Your task to perform on an android device: Go to calendar. Show me events next week Image 0: 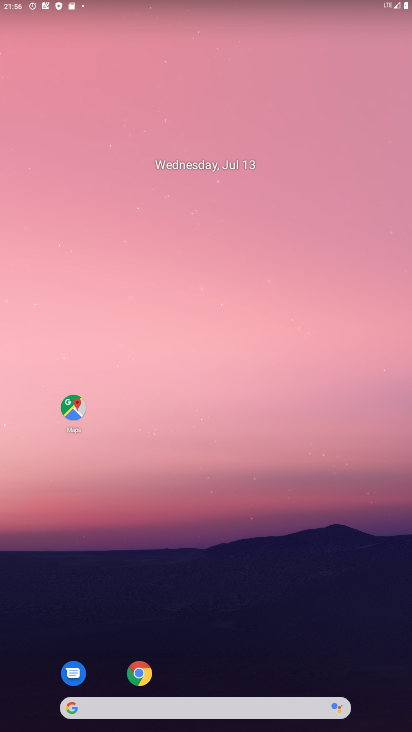
Step 0: drag from (183, 674) to (220, 196)
Your task to perform on an android device: Go to calendar. Show me events next week Image 1: 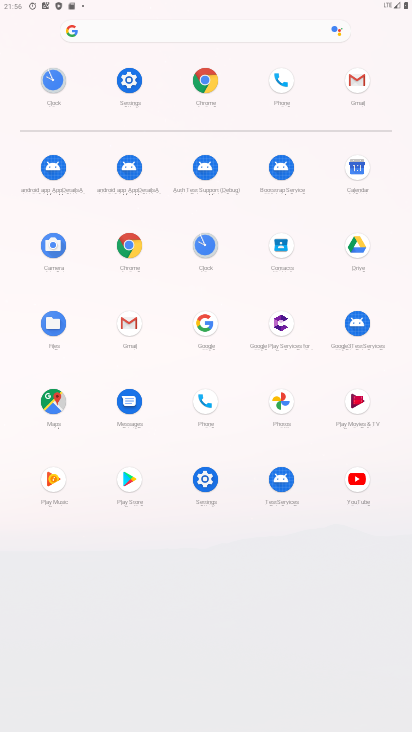
Step 1: drag from (191, 592) to (195, 392)
Your task to perform on an android device: Go to calendar. Show me events next week Image 2: 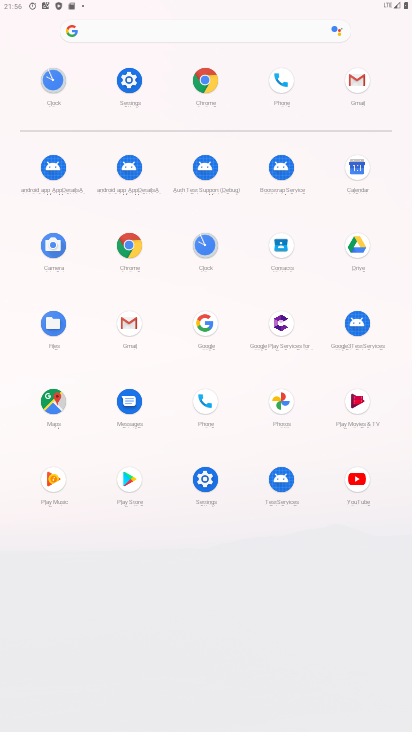
Step 2: drag from (189, 564) to (194, 358)
Your task to perform on an android device: Go to calendar. Show me events next week Image 3: 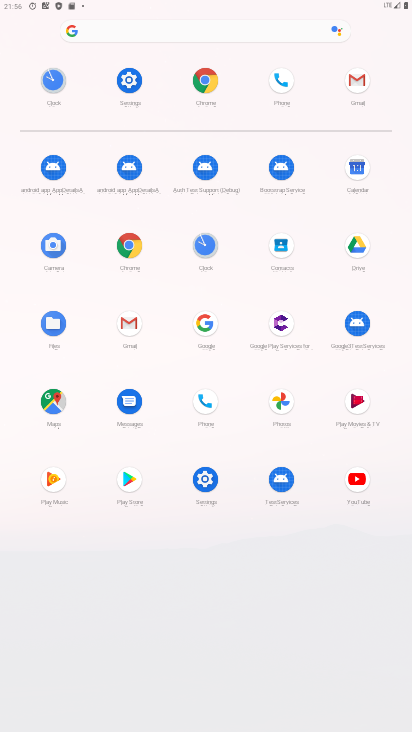
Step 3: drag from (240, 608) to (275, 223)
Your task to perform on an android device: Go to calendar. Show me events next week Image 4: 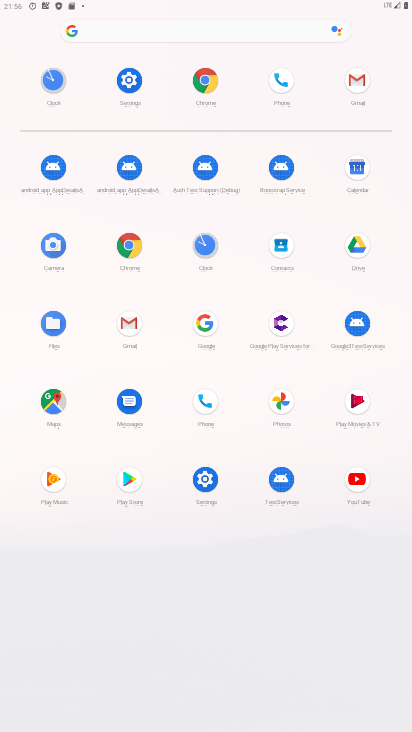
Step 4: drag from (100, 455) to (373, 300)
Your task to perform on an android device: Go to calendar. Show me events next week Image 5: 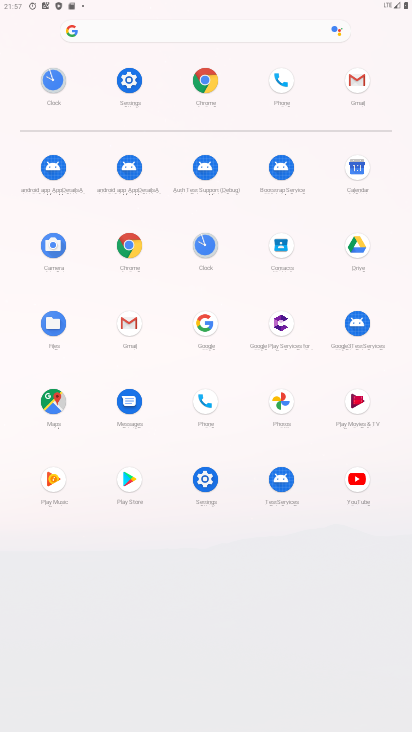
Step 5: click (359, 175)
Your task to perform on an android device: Go to calendar. Show me events next week Image 6: 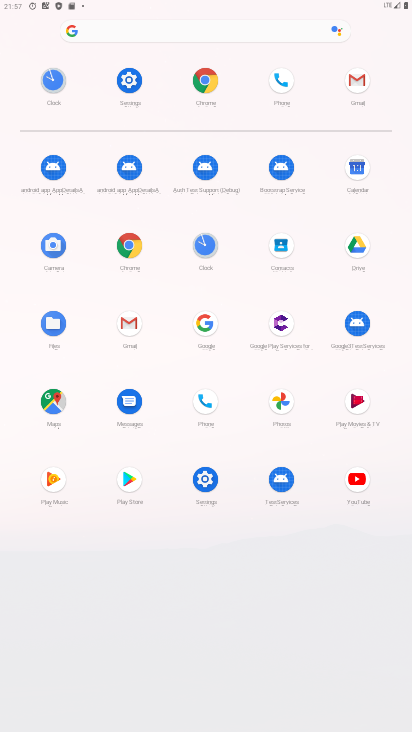
Step 6: click (359, 175)
Your task to perform on an android device: Go to calendar. Show me events next week Image 7: 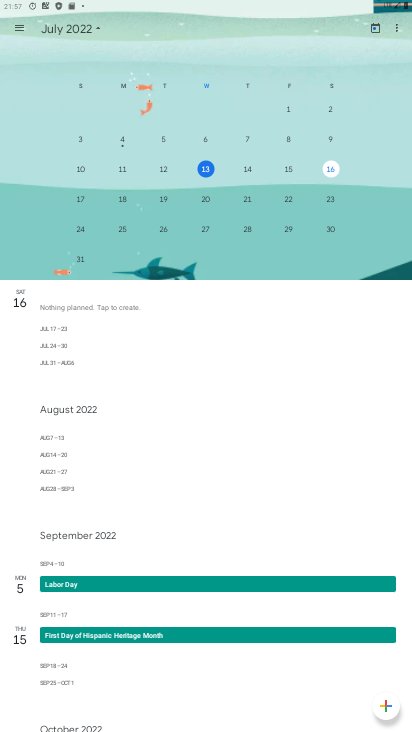
Step 7: drag from (229, 580) to (242, 341)
Your task to perform on an android device: Go to calendar. Show me events next week Image 8: 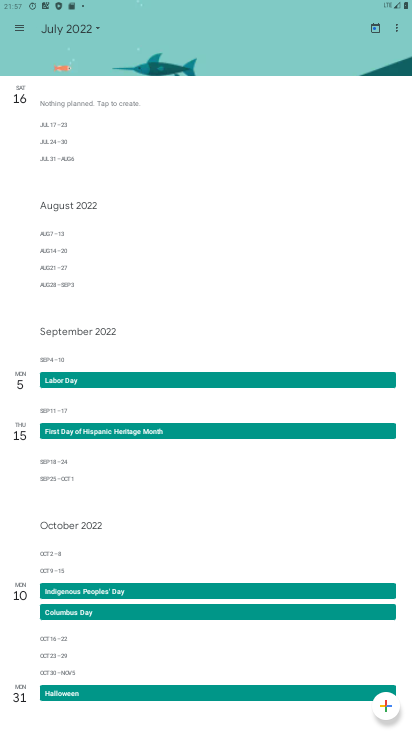
Step 8: drag from (232, 219) to (233, 633)
Your task to perform on an android device: Go to calendar. Show me events next week Image 9: 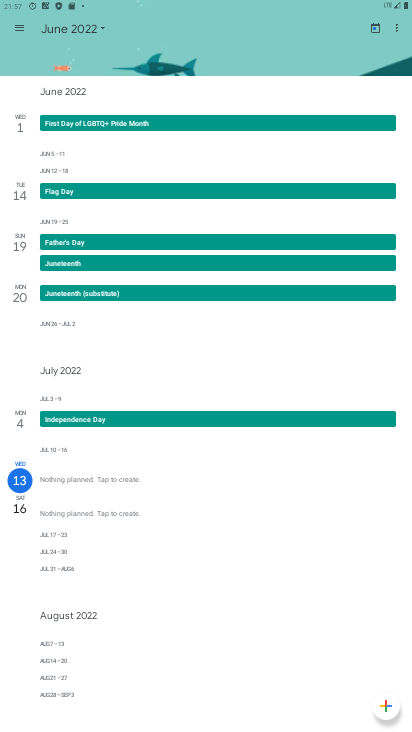
Step 9: click (49, 32)
Your task to perform on an android device: Go to calendar. Show me events next week Image 10: 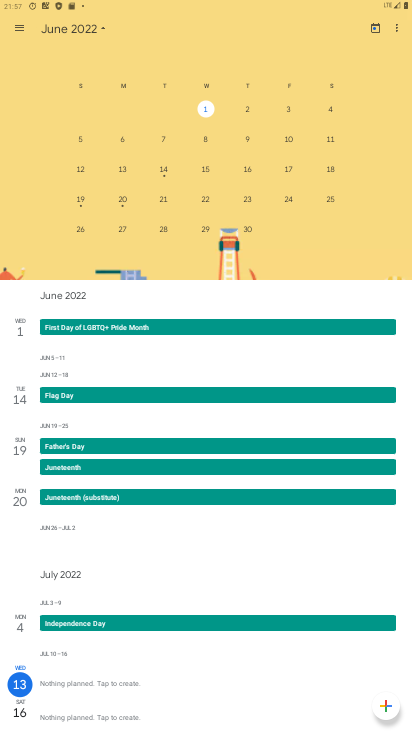
Step 10: click (81, 26)
Your task to perform on an android device: Go to calendar. Show me events next week Image 11: 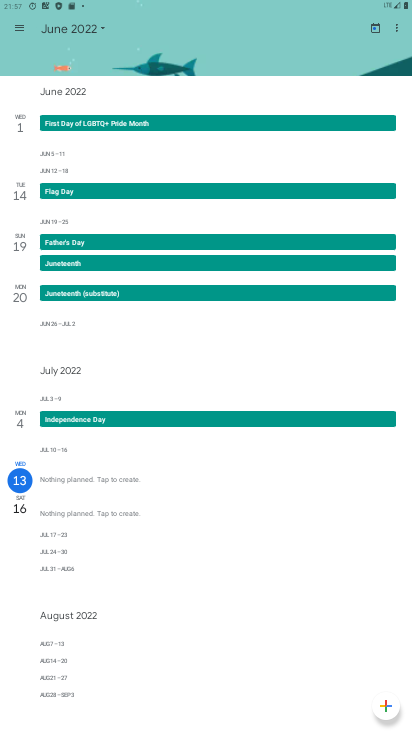
Step 11: click (86, 21)
Your task to perform on an android device: Go to calendar. Show me events next week Image 12: 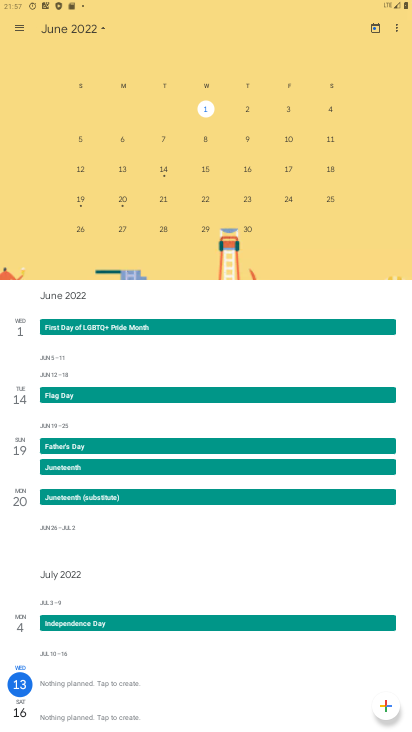
Step 12: click (381, 30)
Your task to perform on an android device: Go to calendar. Show me events next week Image 13: 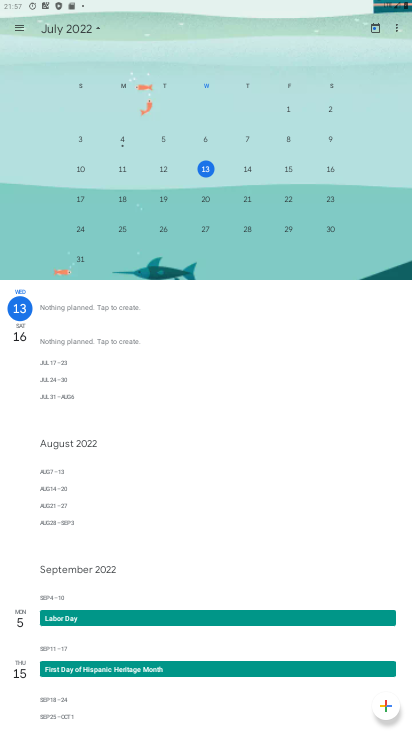
Step 13: click (131, 198)
Your task to perform on an android device: Go to calendar. Show me events next week Image 14: 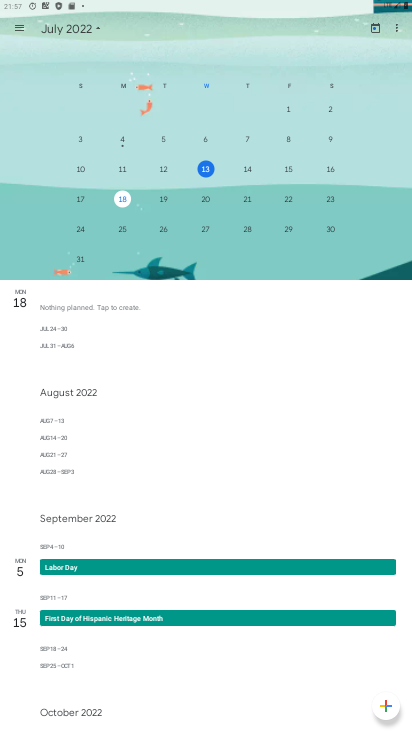
Step 14: task complete